Your task to perform on an android device: Go to eBay Image 0: 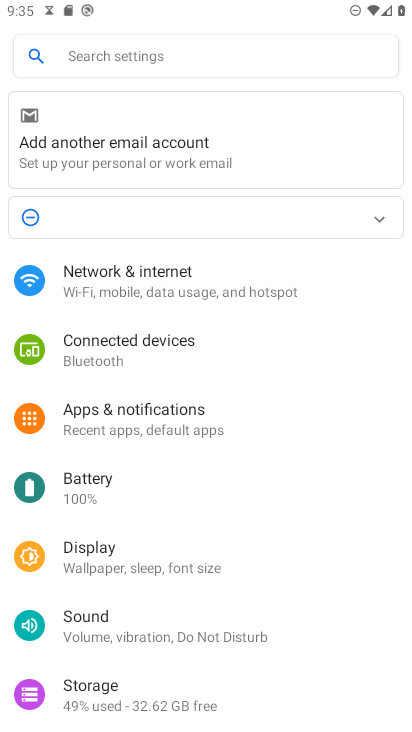
Step 0: press home button
Your task to perform on an android device: Go to eBay Image 1: 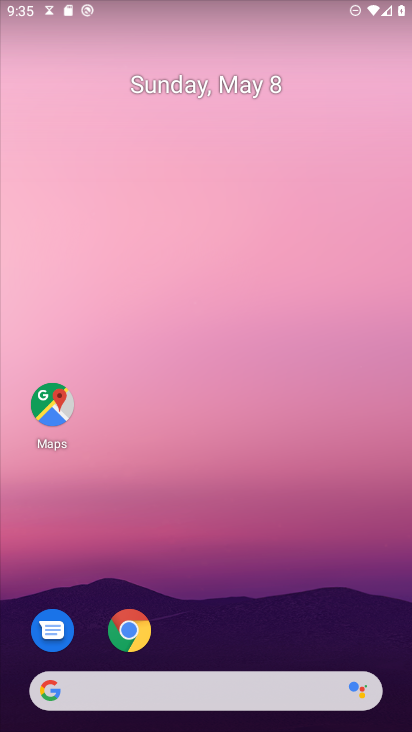
Step 1: drag from (209, 685) to (274, 173)
Your task to perform on an android device: Go to eBay Image 2: 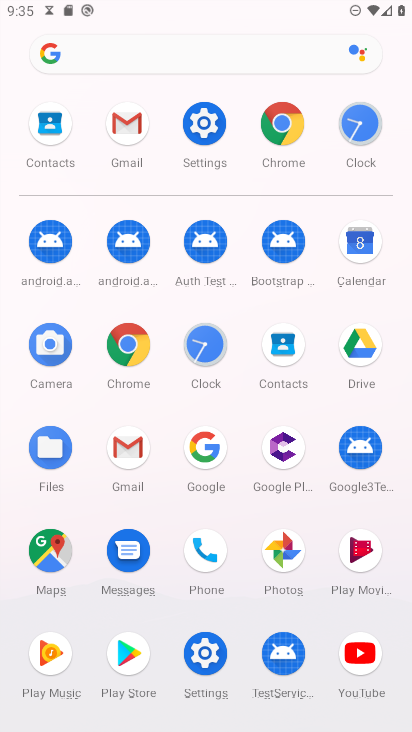
Step 2: click (282, 134)
Your task to perform on an android device: Go to eBay Image 3: 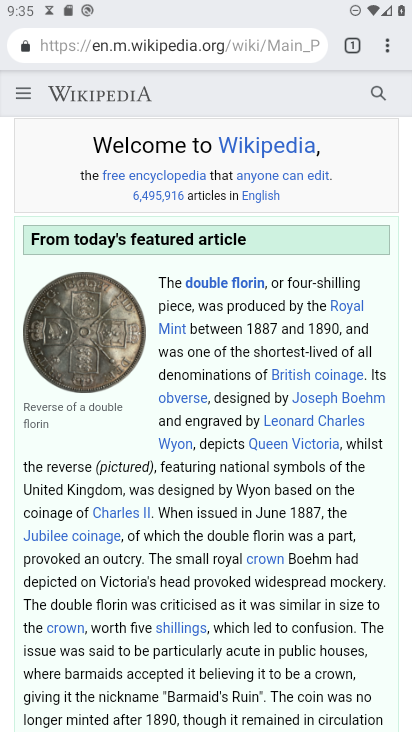
Step 3: drag from (390, 48) to (246, 95)
Your task to perform on an android device: Go to eBay Image 4: 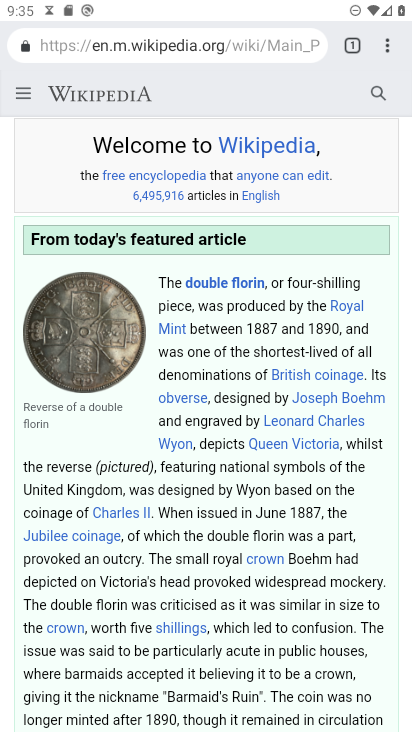
Step 4: click (246, 95)
Your task to perform on an android device: Go to eBay Image 5: 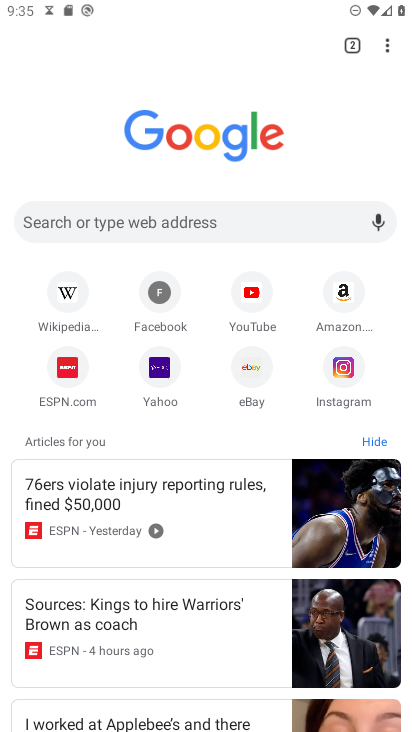
Step 5: click (257, 372)
Your task to perform on an android device: Go to eBay Image 6: 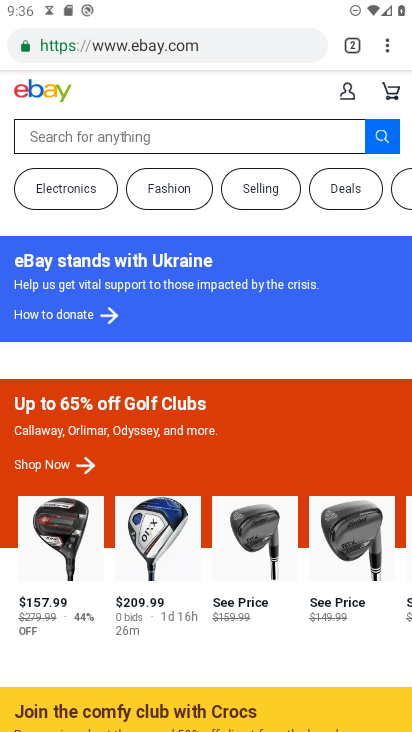
Step 6: task complete